Your task to perform on an android device: check android version Image 0: 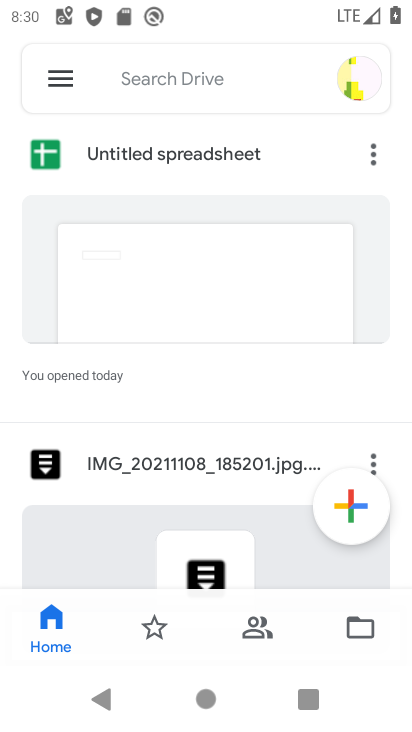
Step 0: press home button
Your task to perform on an android device: check android version Image 1: 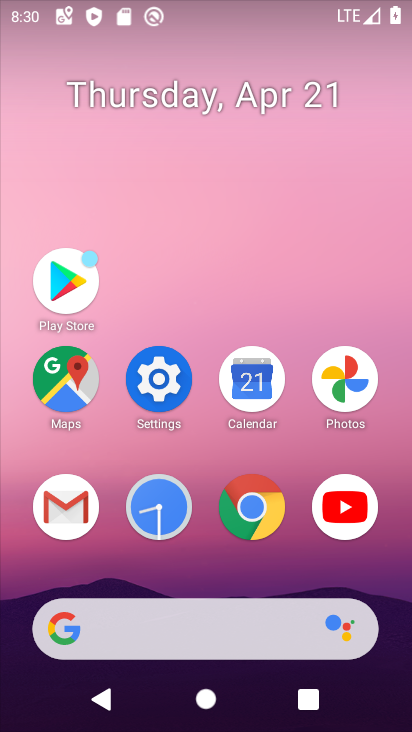
Step 1: click (158, 381)
Your task to perform on an android device: check android version Image 2: 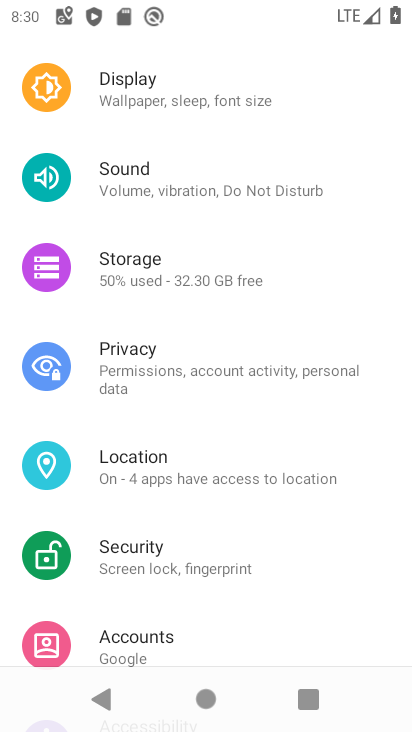
Step 2: drag from (304, 572) to (248, 7)
Your task to perform on an android device: check android version Image 3: 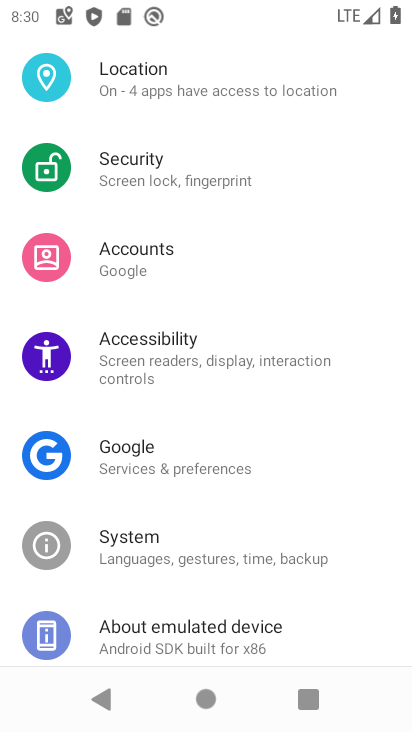
Step 3: click (204, 620)
Your task to perform on an android device: check android version Image 4: 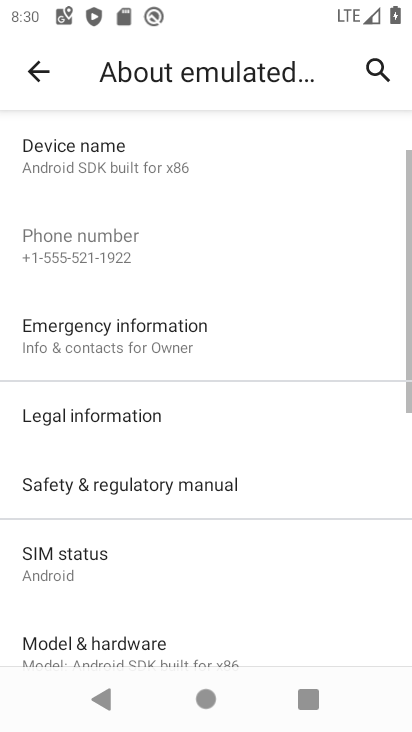
Step 4: drag from (265, 551) to (243, 308)
Your task to perform on an android device: check android version Image 5: 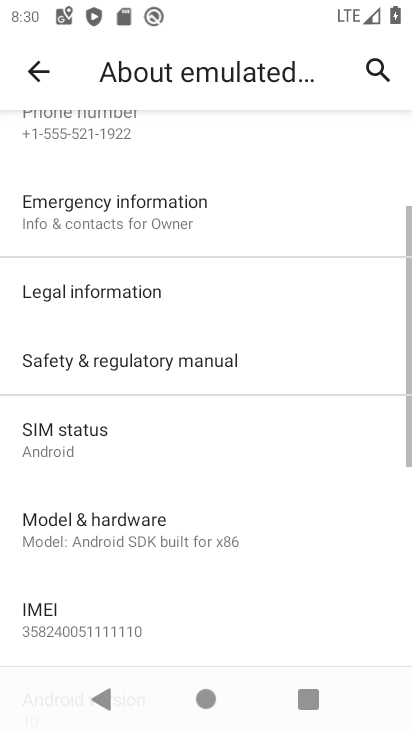
Step 5: drag from (258, 476) to (252, 158)
Your task to perform on an android device: check android version Image 6: 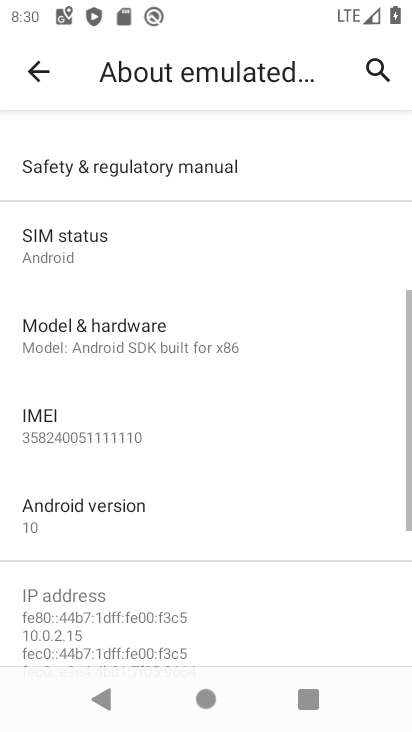
Step 6: click (114, 509)
Your task to perform on an android device: check android version Image 7: 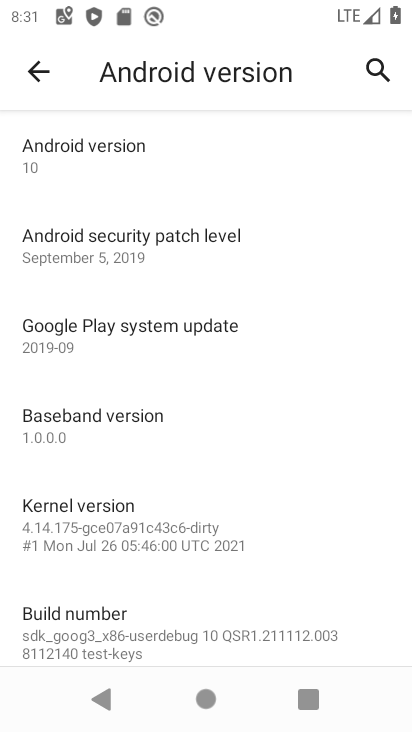
Step 7: task complete